Your task to perform on an android device: star an email in the gmail app Image 0: 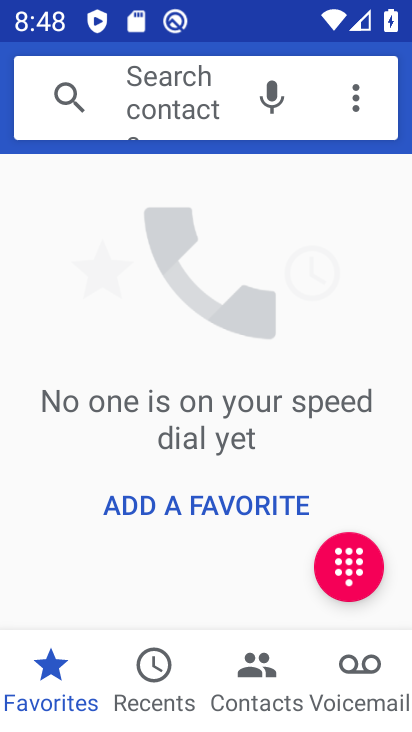
Step 0: press back button
Your task to perform on an android device: star an email in the gmail app Image 1: 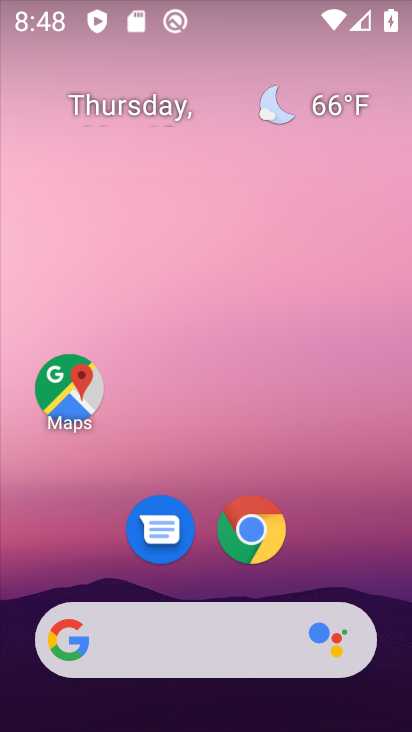
Step 1: drag from (348, 535) to (229, 1)
Your task to perform on an android device: star an email in the gmail app Image 2: 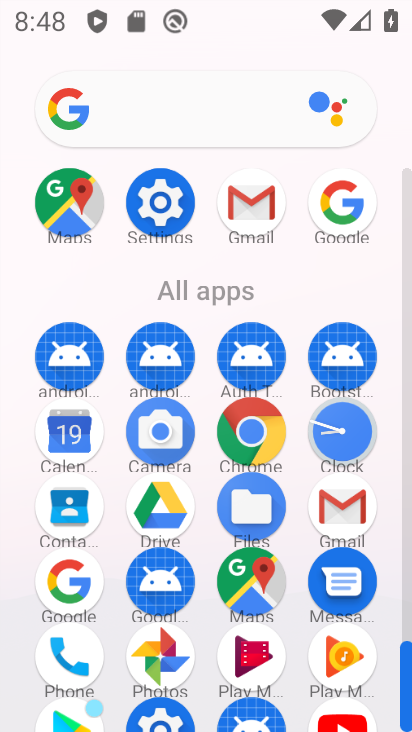
Step 2: click (250, 200)
Your task to perform on an android device: star an email in the gmail app Image 3: 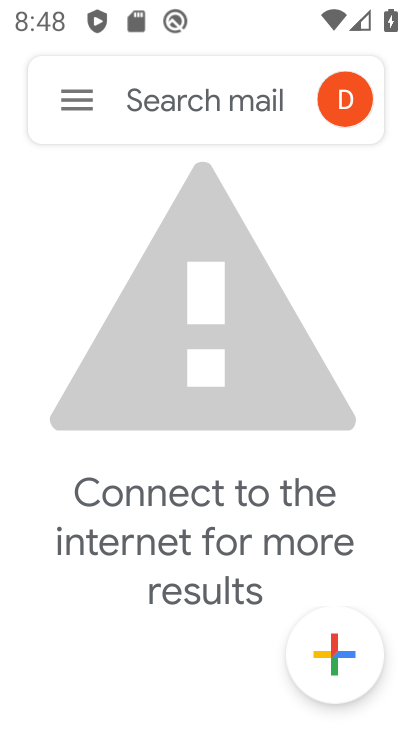
Step 3: click (77, 101)
Your task to perform on an android device: star an email in the gmail app Image 4: 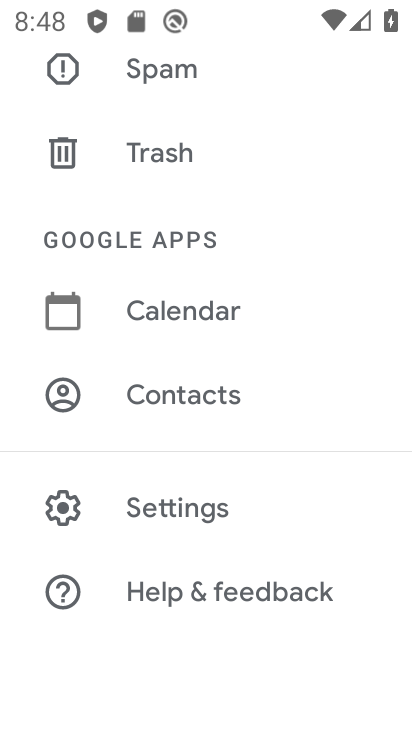
Step 4: drag from (170, 184) to (217, 397)
Your task to perform on an android device: star an email in the gmail app Image 5: 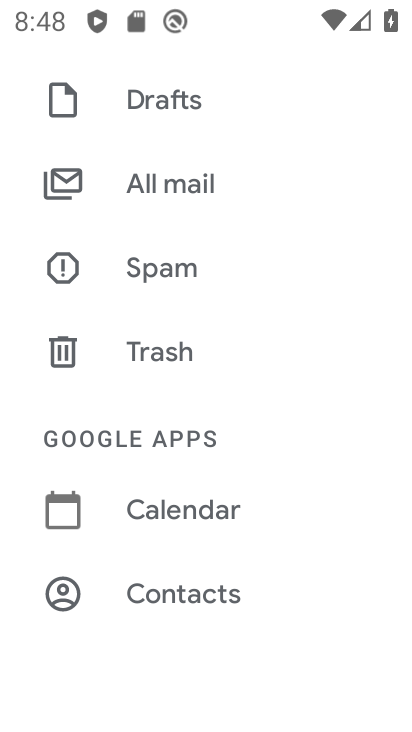
Step 5: click (216, 188)
Your task to perform on an android device: star an email in the gmail app Image 6: 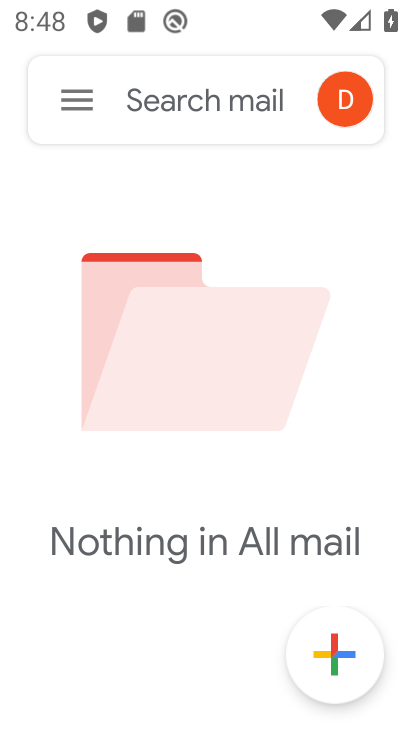
Step 6: click (84, 91)
Your task to perform on an android device: star an email in the gmail app Image 7: 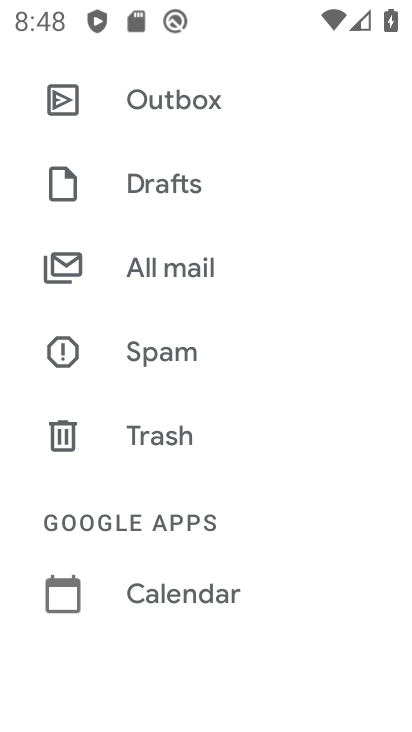
Step 7: drag from (147, 465) to (163, 368)
Your task to perform on an android device: star an email in the gmail app Image 8: 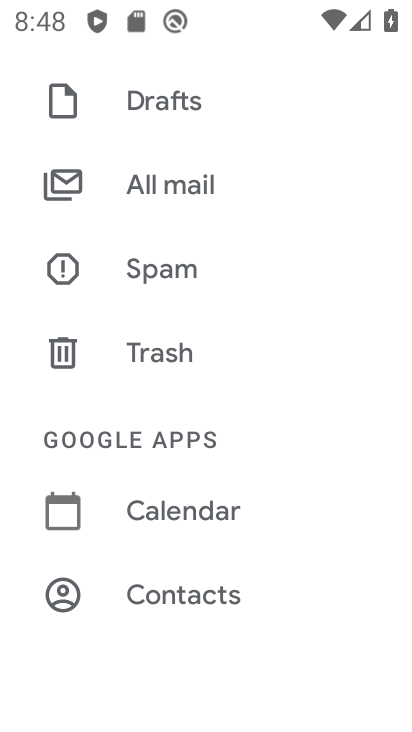
Step 8: drag from (205, 355) to (192, 559)
Your task to perform on an android device: star an email in the gmail app Image 9: 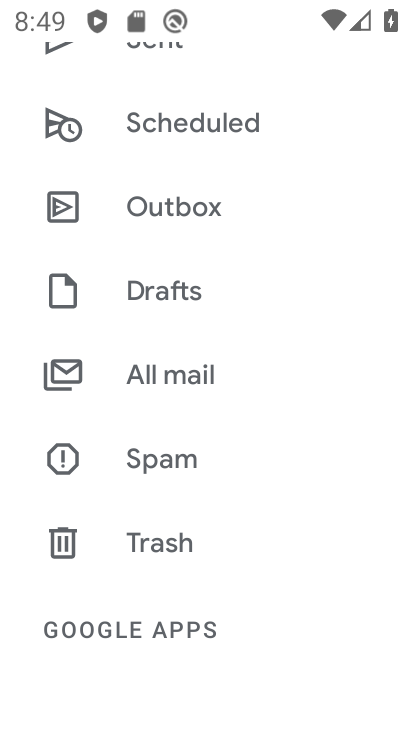
Step 9: drag from (184, 190) to (172, 355)
Your task to perform on an android device: star an email in the gmail app Image 10: 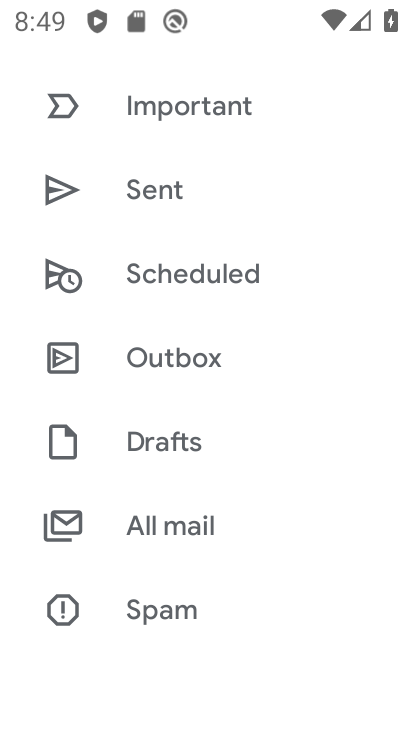
Step 10: click (189, 514)
Your task to perform on an android device: star an email in the gmail app Image 11: 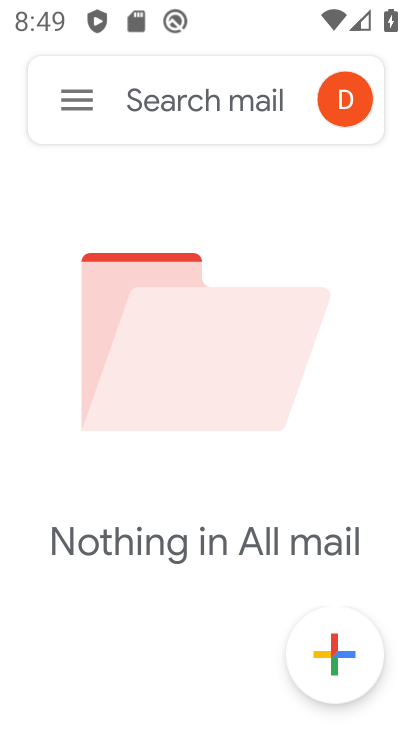
Step 11: click (343, 199)
Your task to perform on an android device: star an email in the gmail app Image 12: 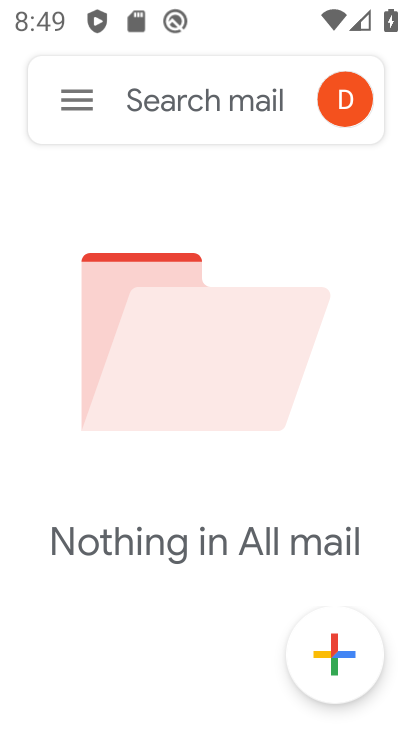
Step 12: task complete